Your task to perform on an android device: Open the map Image 0: 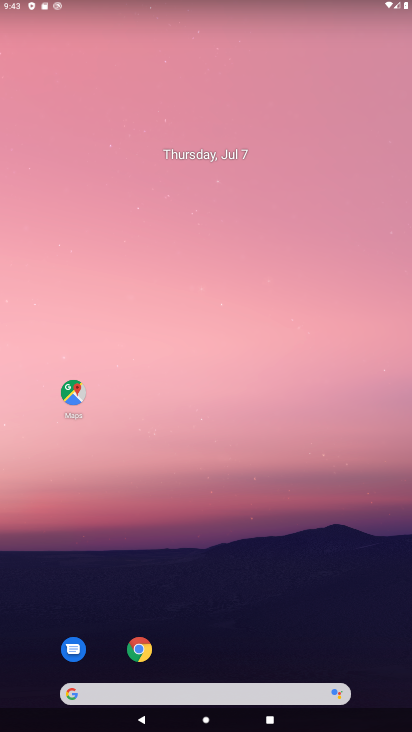
Step 0: click (71, 383)
Your task to perform on an android device: Open the map Image 1: 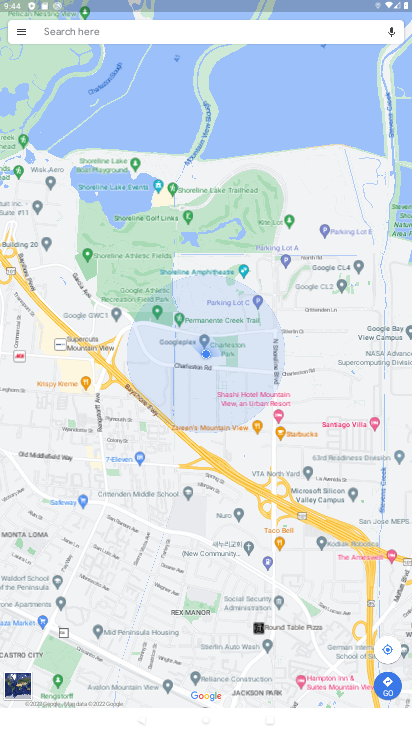
Step 1: task complete